Your task to perform on an android device: Open my contact list Image 0: 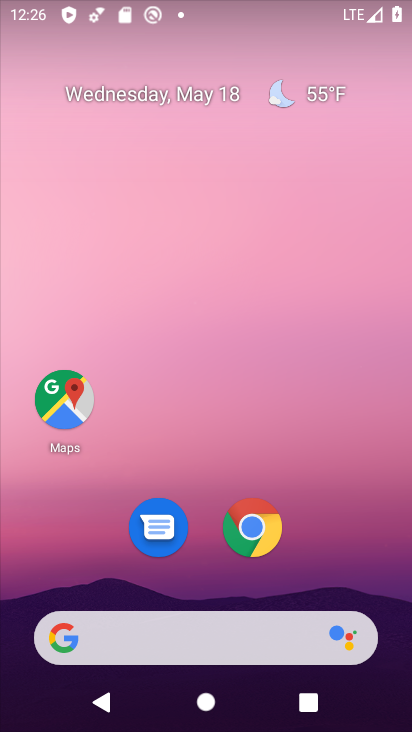
Step 0: drag from (327, 505) to (215, 72)
Your task to perform on an android device: Open my contact list Image 1: 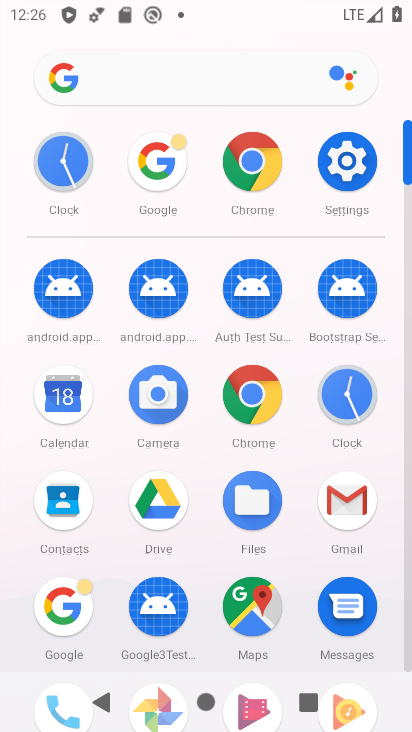
Step 1: click (60, 514)
Your task to perform on an android device: Open my contact list Image 2: 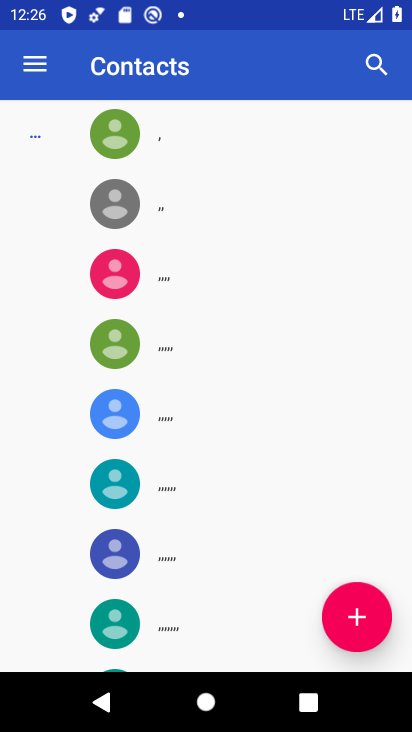
Step 2: task complete